Your task to perform on an android device: Is it going to rain tomorrow? Image 0: 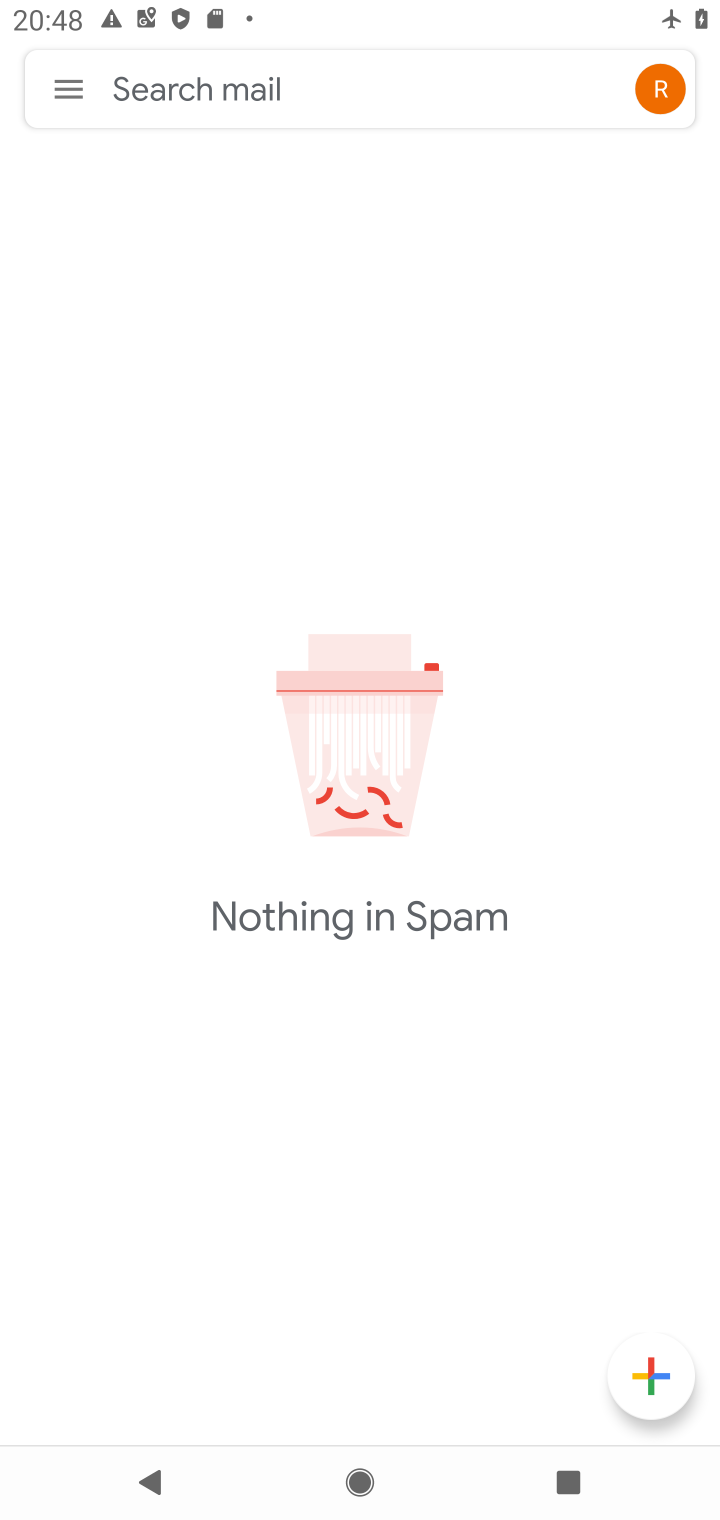
Step 0: press home button
Your task to perform on an android device: Is it going to rain tomorrow? Image 1: 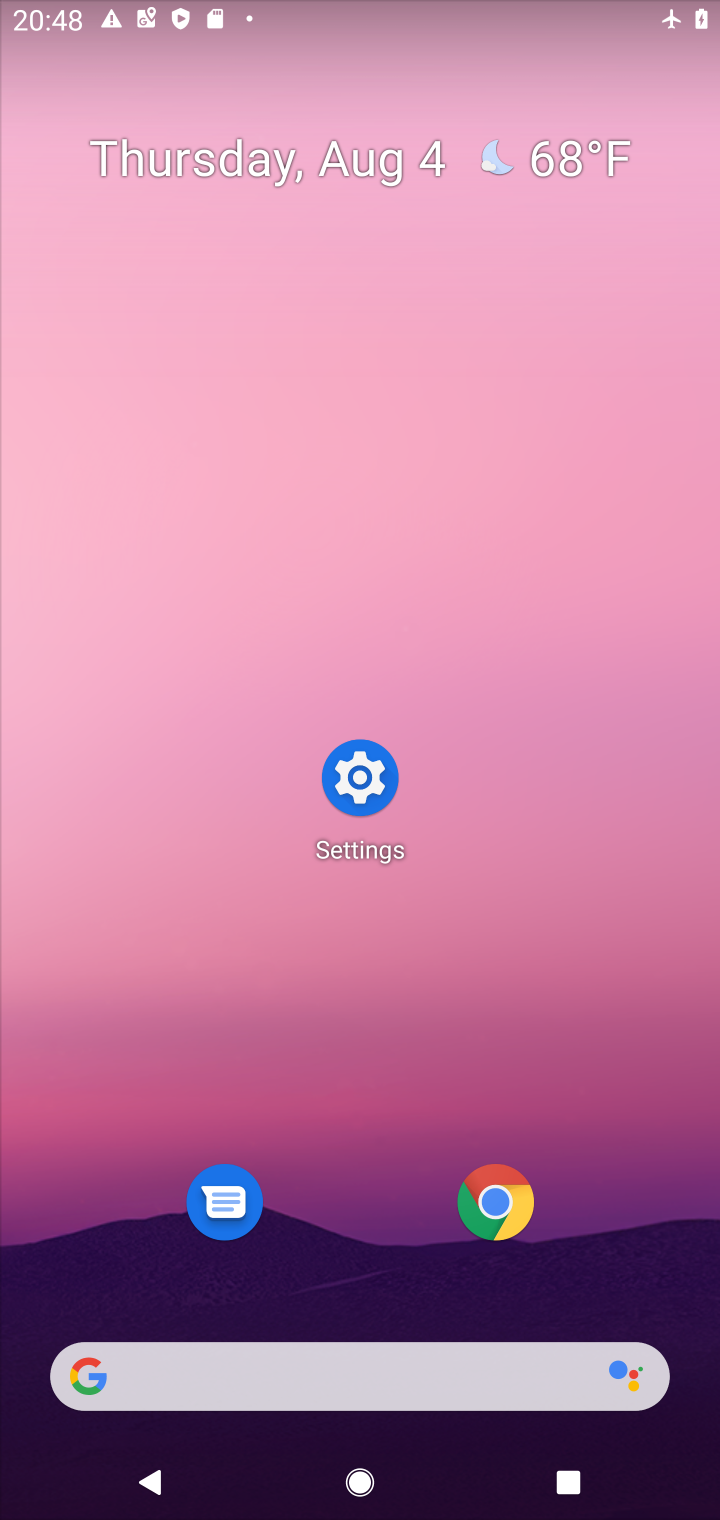
Step 1: drag from (396, 1046) to (396, 606)
Your task to perform on an android device: Is it going to rain tomorrow? Image 2: 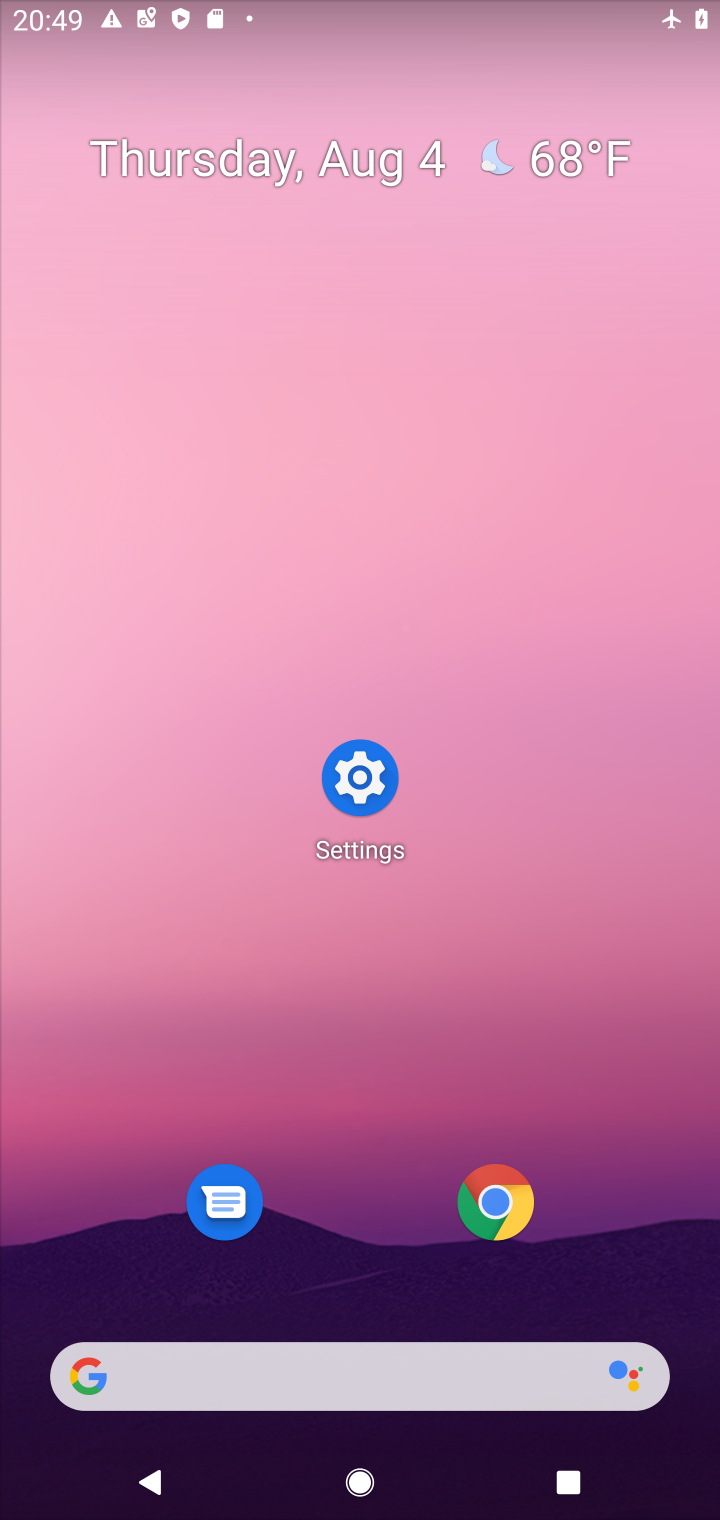
Step 2: drag from (315, 1224) to (411, 279)
Your task to perform on an android device: Is it going to rain tomorrow? Image 3: 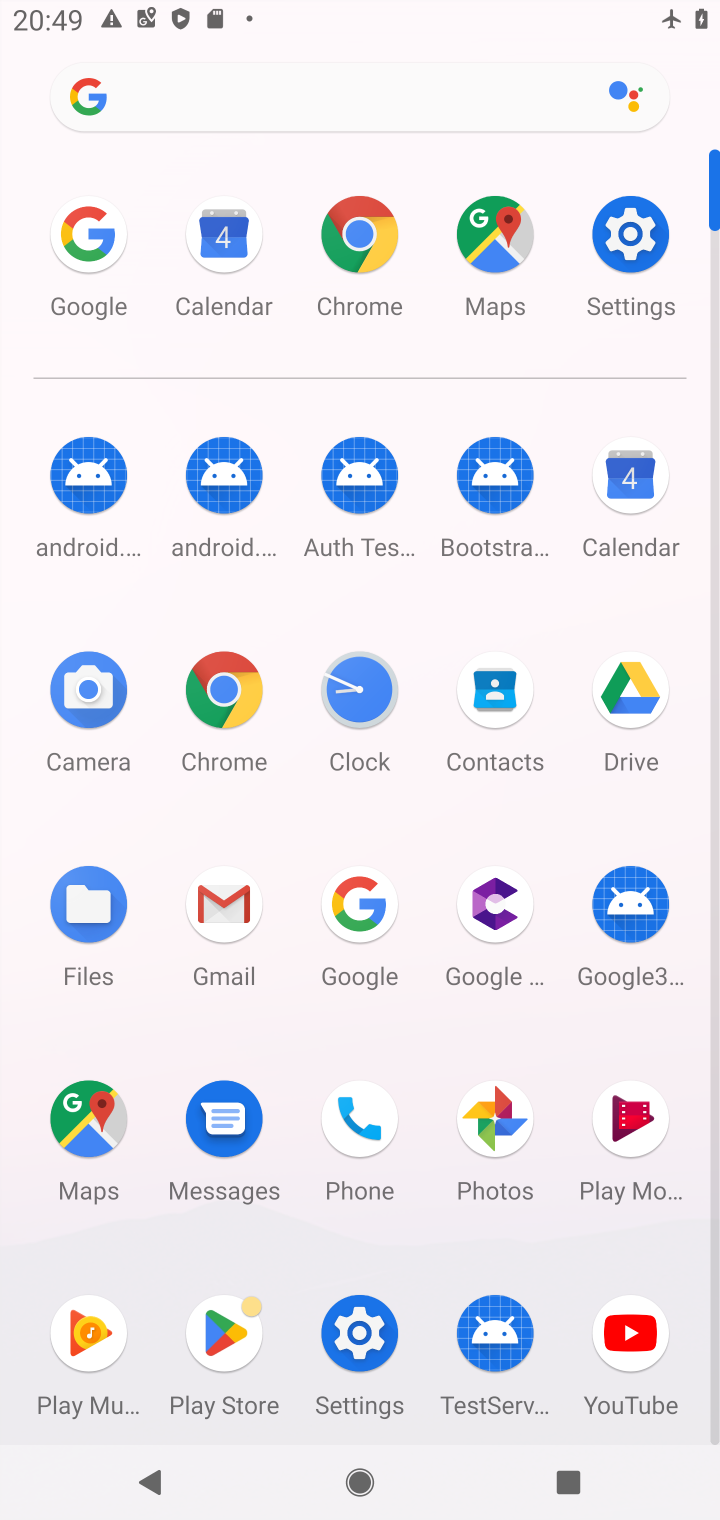
Step 3: click (356, 870)
Your task to perform on an android device: Is it going to rain tomorrow? Image 4: 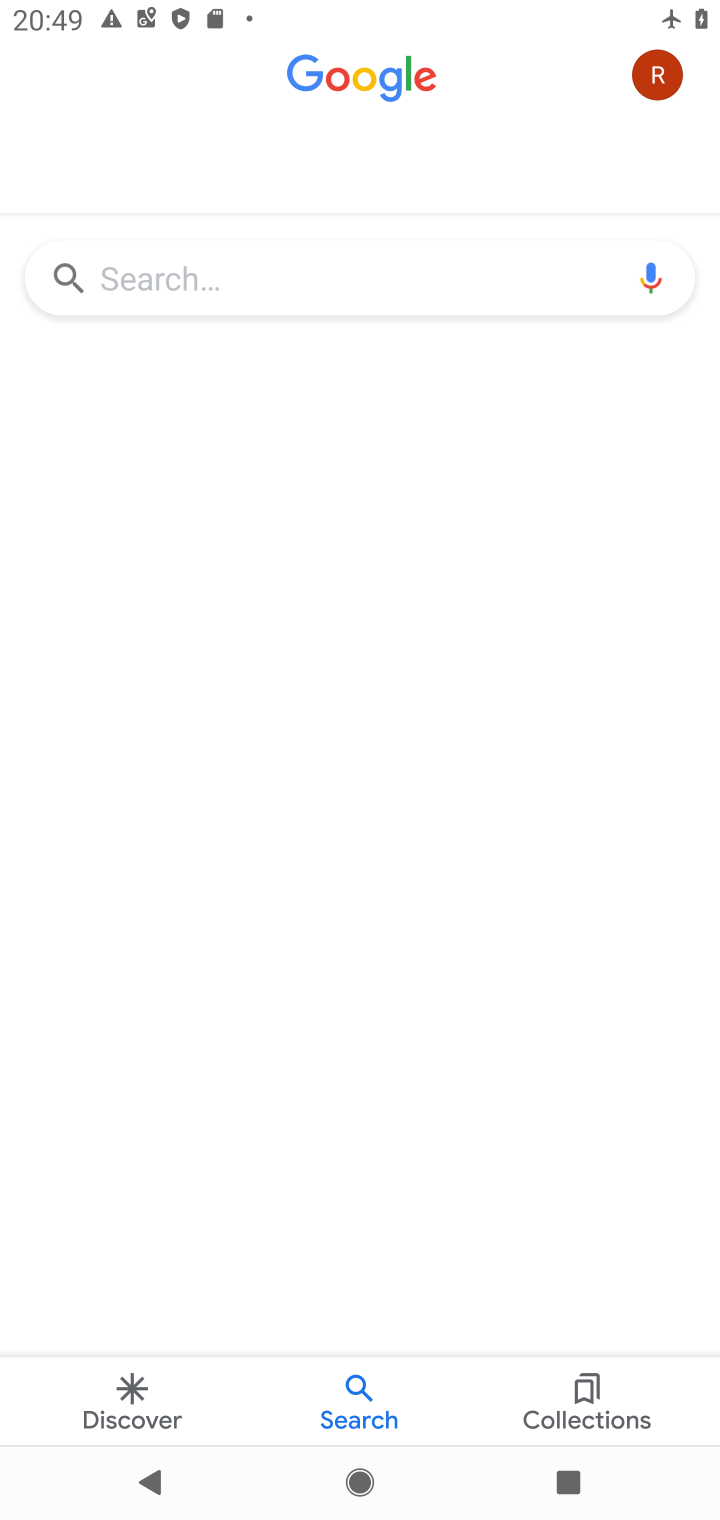
Step 4: click (198, 287)
Your task to perform on an android device: Is it going to rain tomorrow? Image 5: 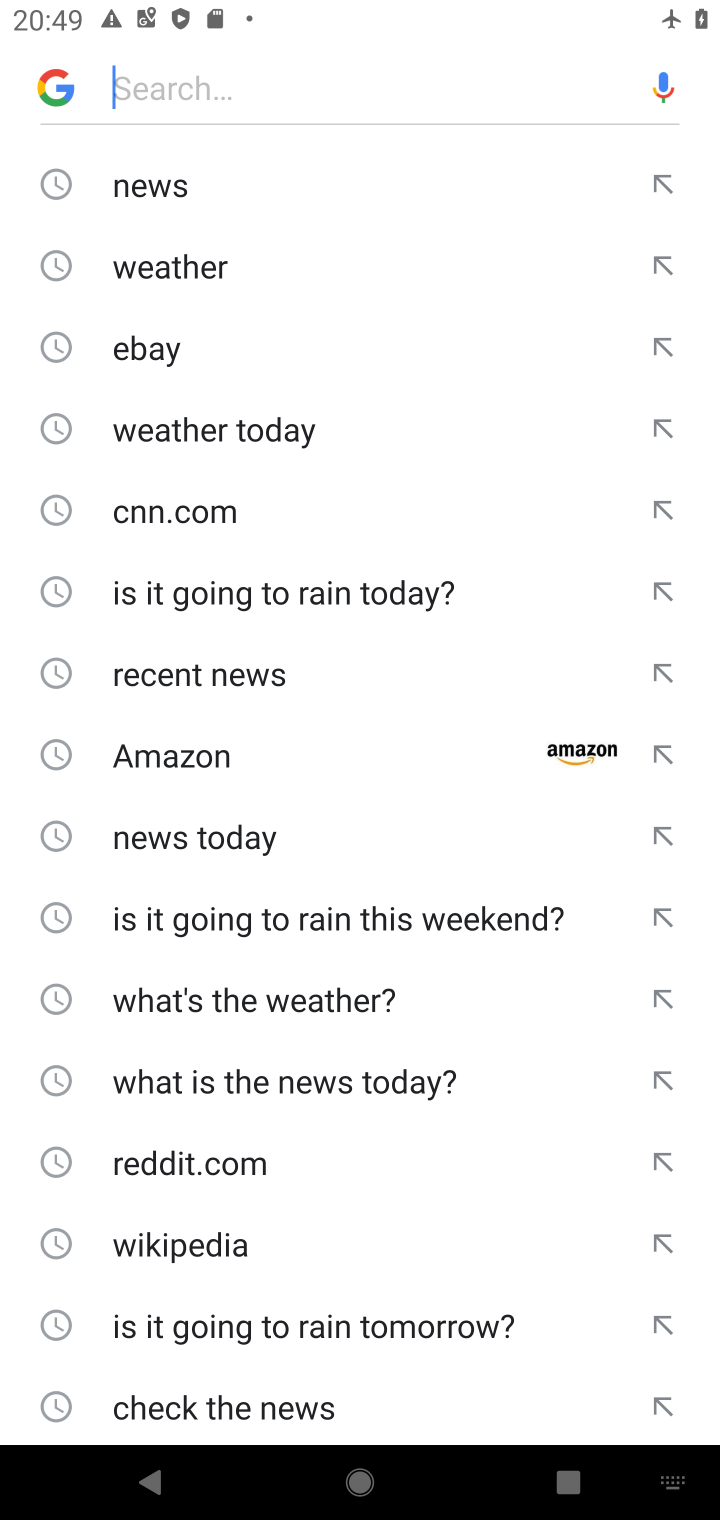
Step 5: click (199, 292)
Your task to perform on an android device: Is it going to rain tomorrow? Image 6: 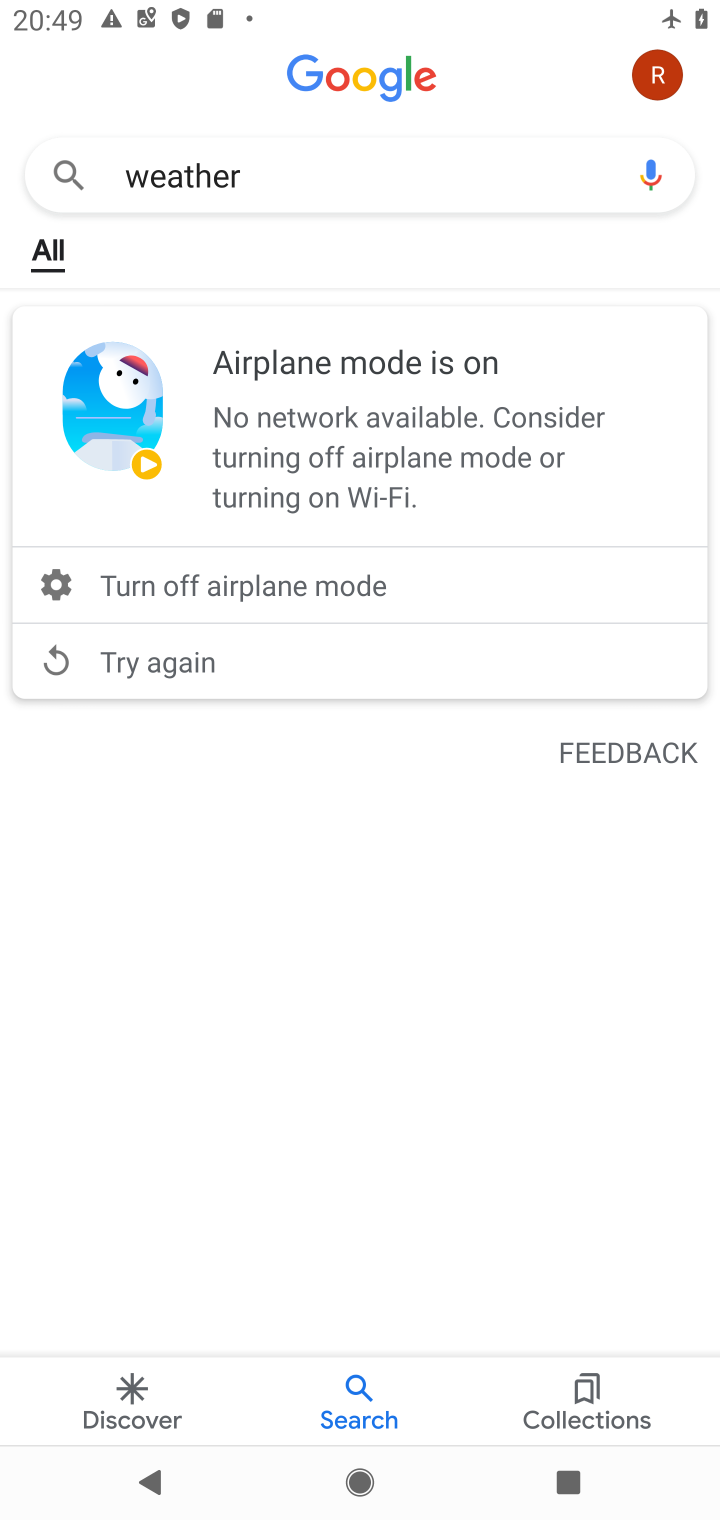
Step 6: task complete